Your task to perform on an android device: turn on sleep mode Image 0: 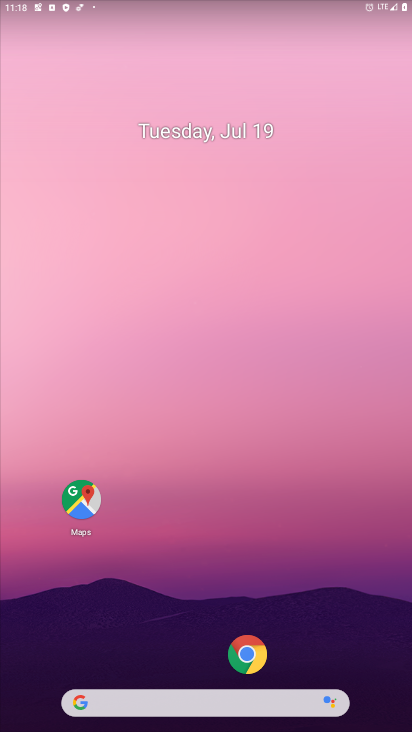
Step 0: drag from (143, 636) to (214, 60)
Your task to perform on an android device: turn on sleep mode Image 1: 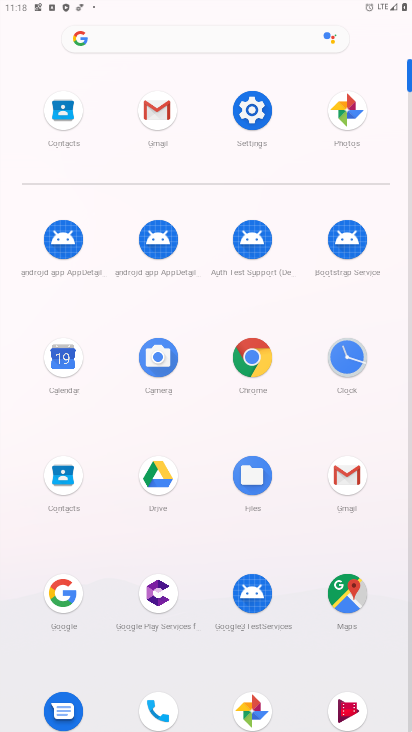
Step 1: click (253, 98)
Your task to perform on an android device: turn on sleep mode Image 2: 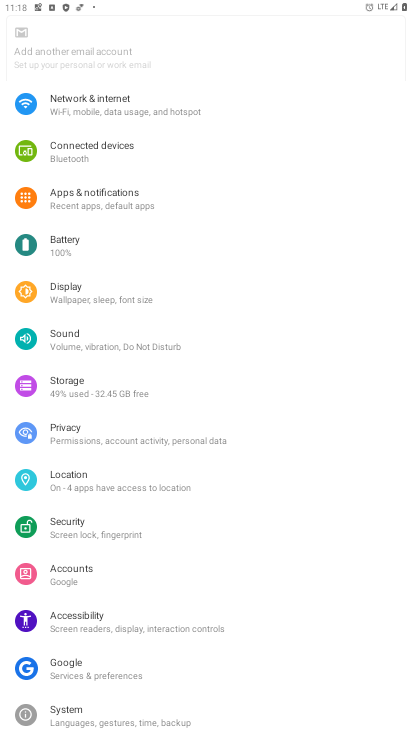
Step 2: task complete